Your task to perform on an android device: turn off priority inbox in the gmail app Image 0: 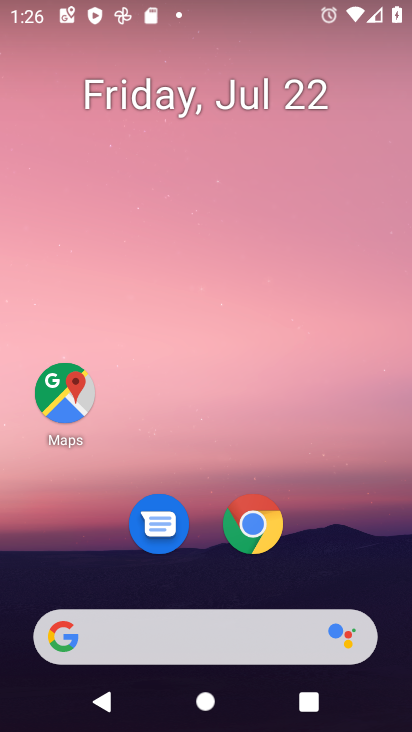
Step 0: press home button
Your task to perform on an android device: turn off priority inbox in the gmail app Image 1: 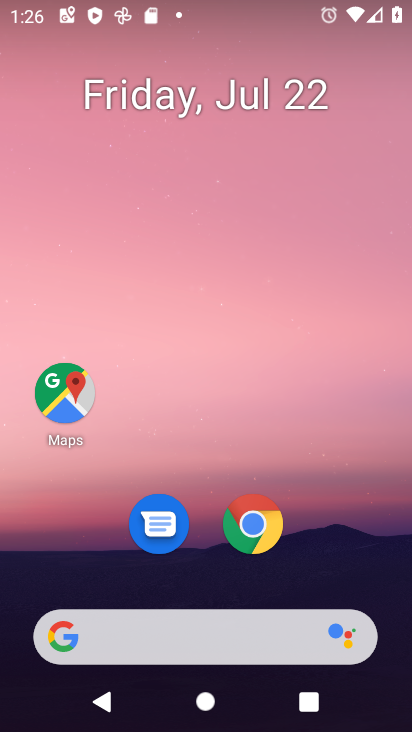
Step 1: drag from (166, 638) to (279, 111)
Your task to perform on an android device: turn off priority inbox in the gmail app Image 2: 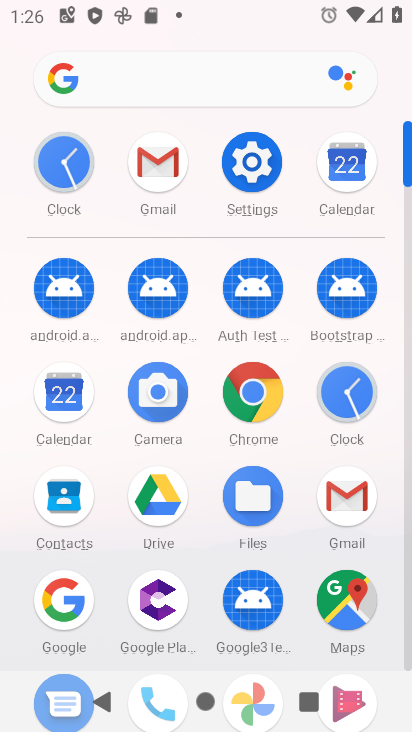
Step 2: click (168, 171)
Your task to perform on an android device: turn off priority inbox in the gmail app Image 3: 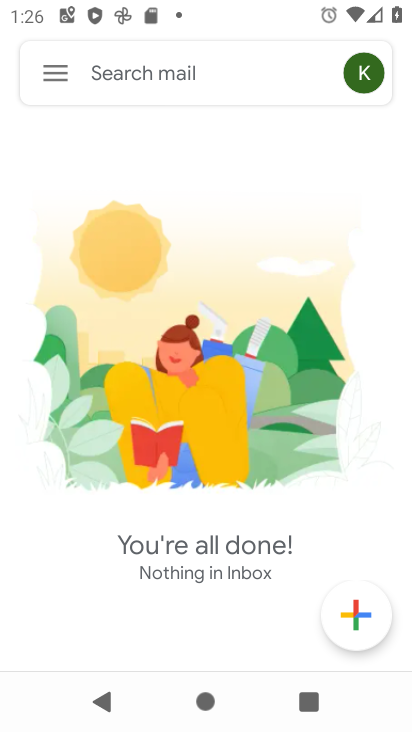
Step 3: click (62, 70)
Your task to perform on an android device: turn off priority inbox in the gmail app Image 4: 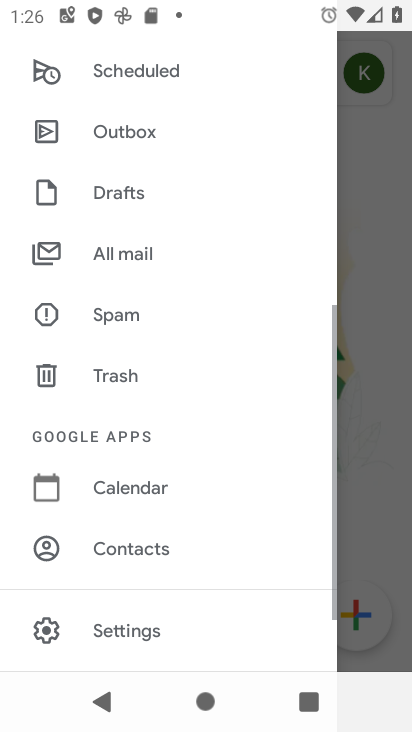
Step 4: click (137, 627)
Your task to perform on an android device: turn off priority inbox in the gmail app Image 5: 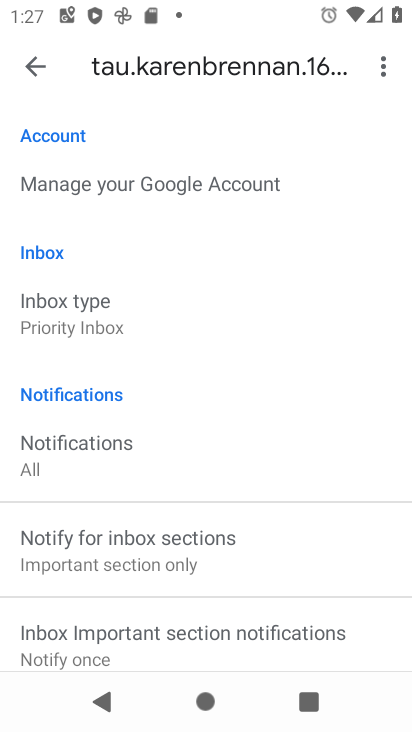
Step 5: click (63, 300)
Your task to perform on an android device: turn off priority inbox in the gmail app Image 6: 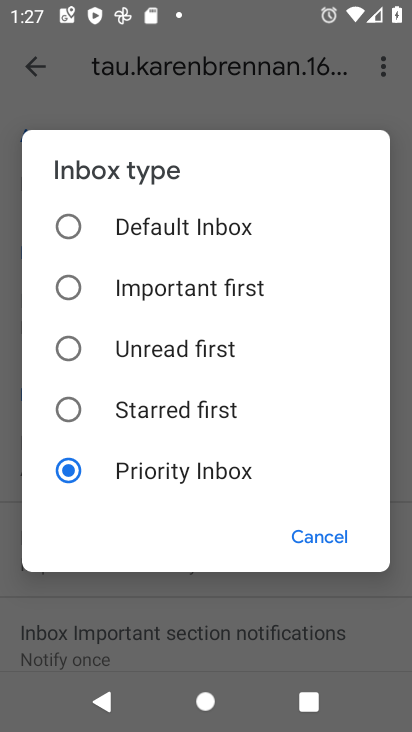
Step 6: click (67, 217)
Your task to perform on an android device: turn off priority inbox in the gmail app Image 7: 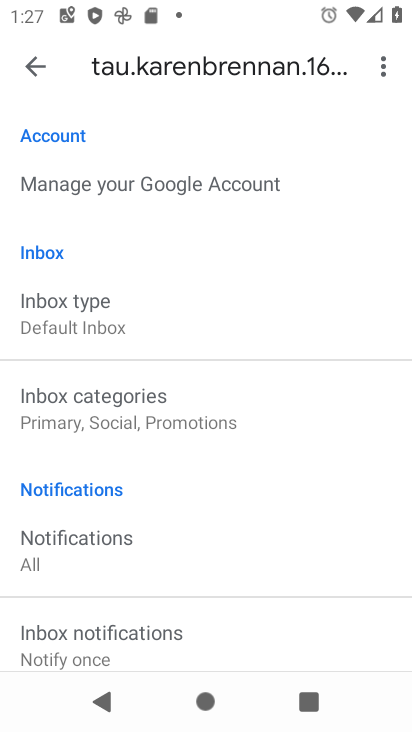
Step 7: task complete